Your task to perform on an android device: toggle translation in the chrome app Image 0: 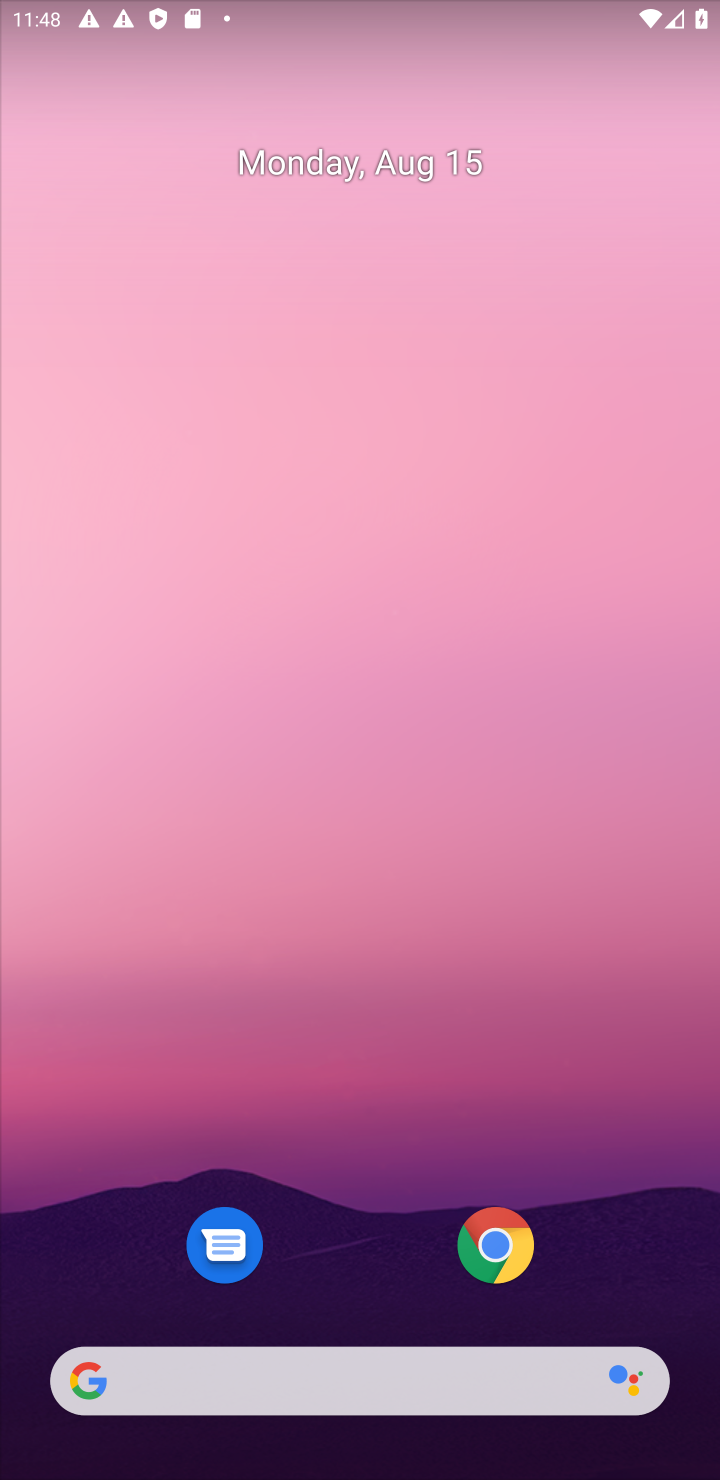
Step 0: drag from (308, 496) to (313, 227)
Your task to perform on an android device: toggle translation in the chrome app Image 1: 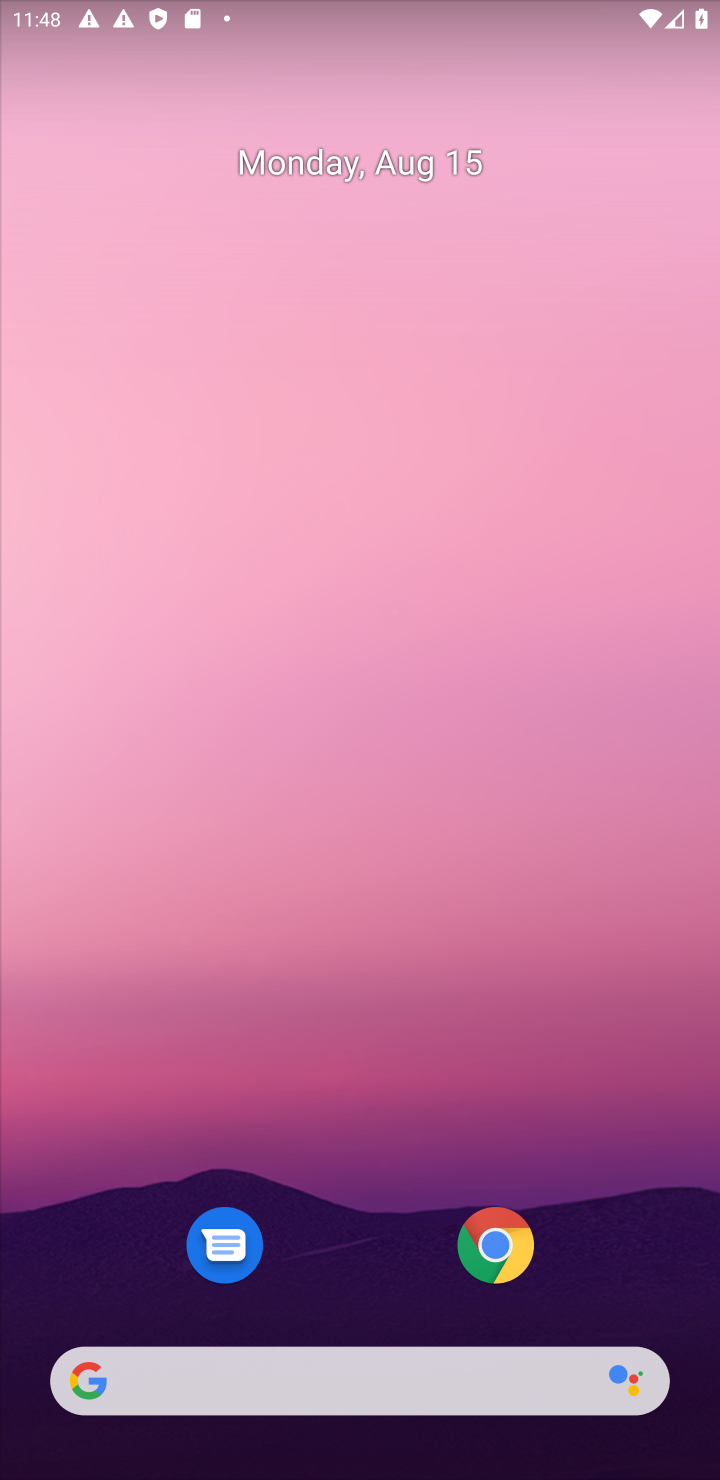
Step 1: drag from (257, 1194) to (334, 125)
Your task to perform on an android device: toggle translation in the chrome app Image 2: 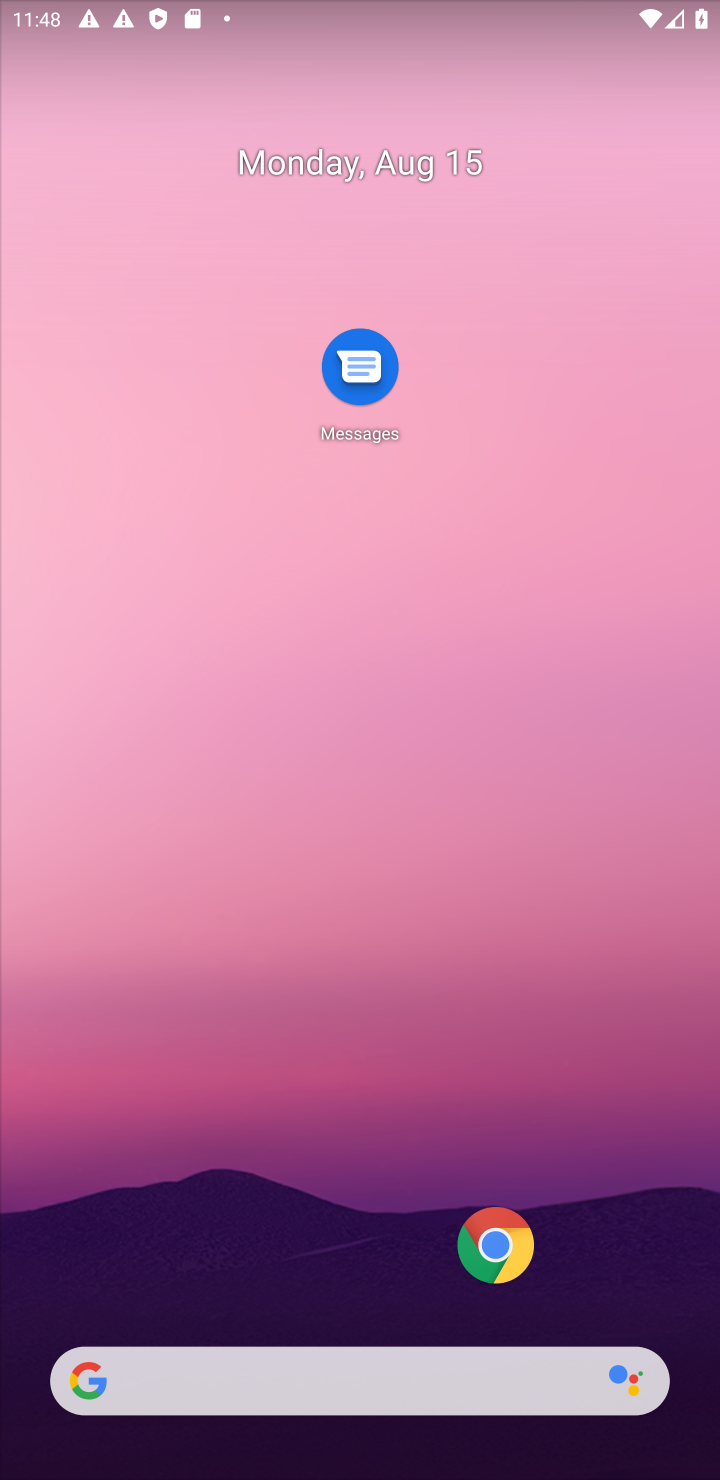
Step 2: drag from (358, 743) to (379, 374)
Your task to perform on an android device: toggle translation in the chrome app Image 3: 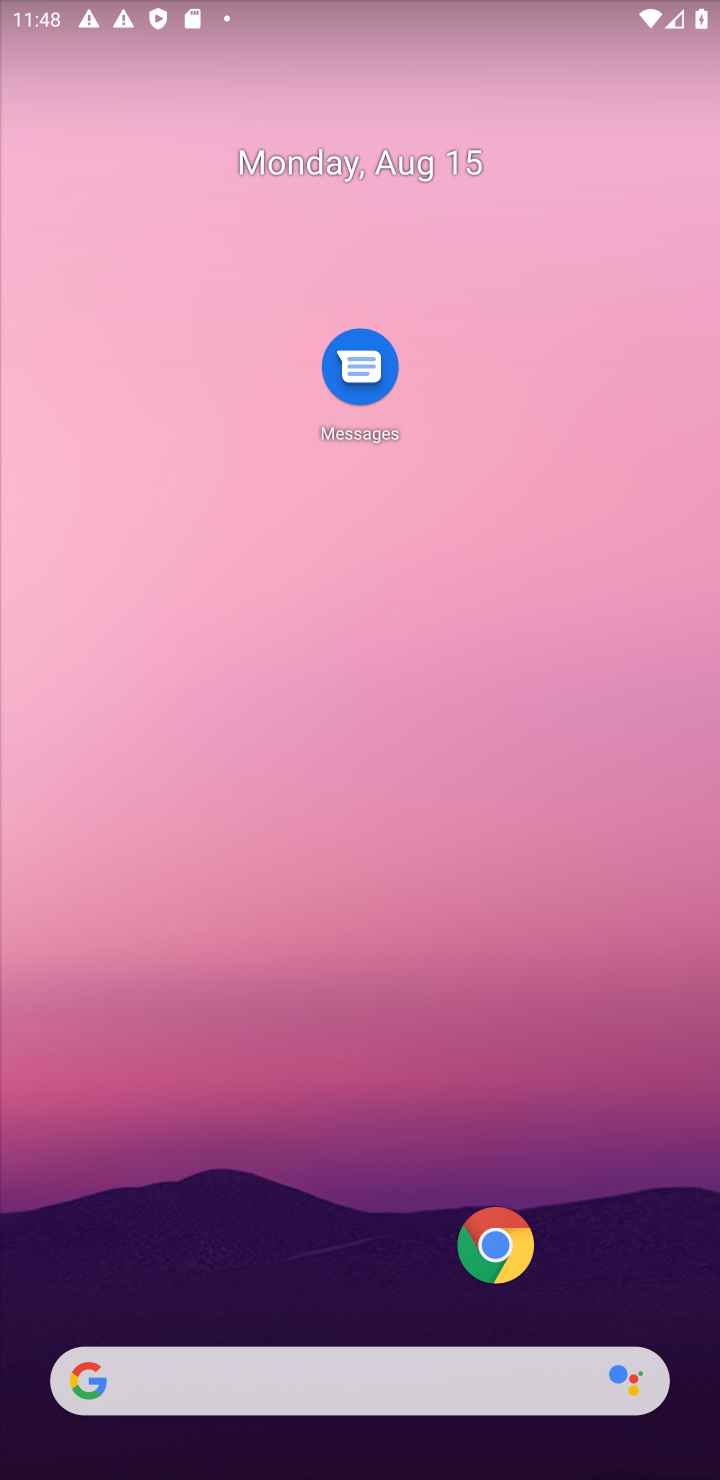
Step 3: drag from (291, 818) to (356, 407)
Your task to perform on an android device: toggle translation in the chrome app Image 4: 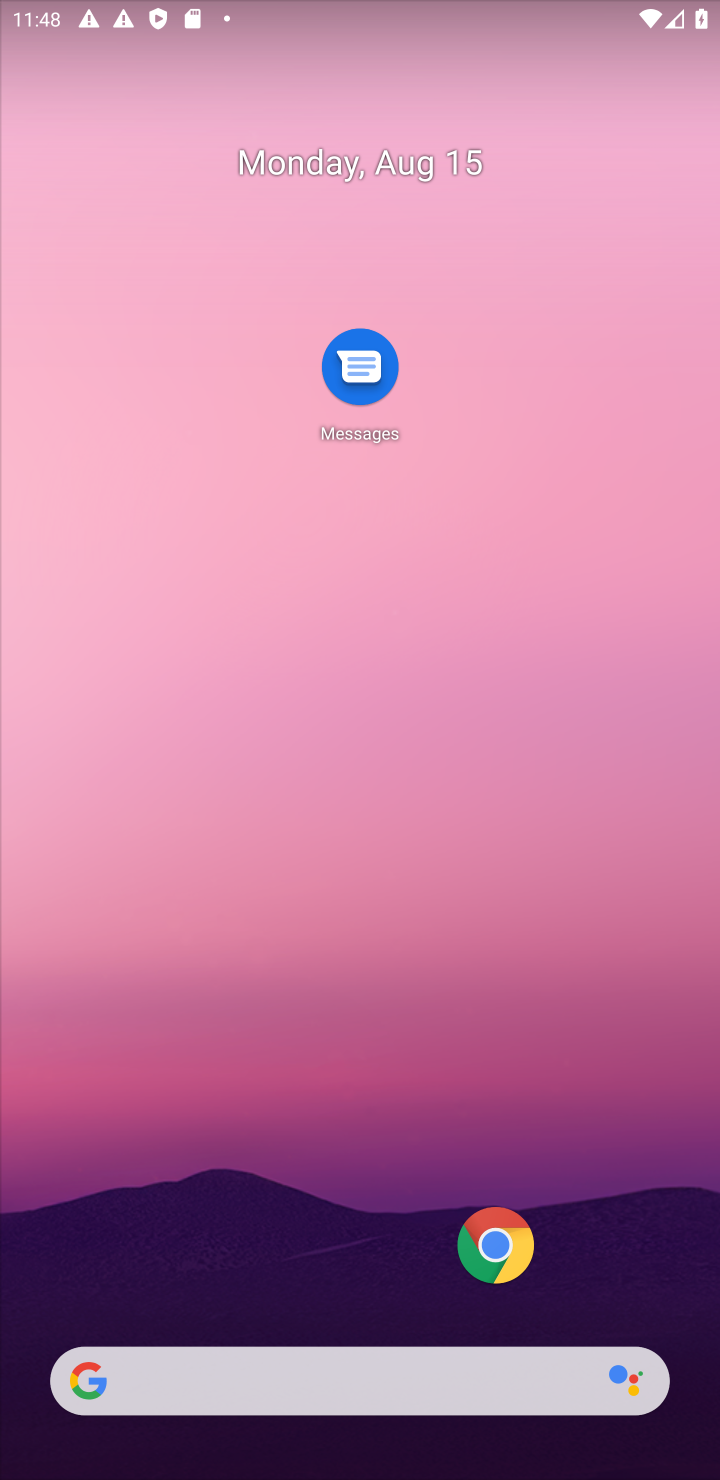
Step 4: drag from (251, 1291) to (297, 176)
Your task to perform on an android device: toggle translation in the chrome app Image 5: 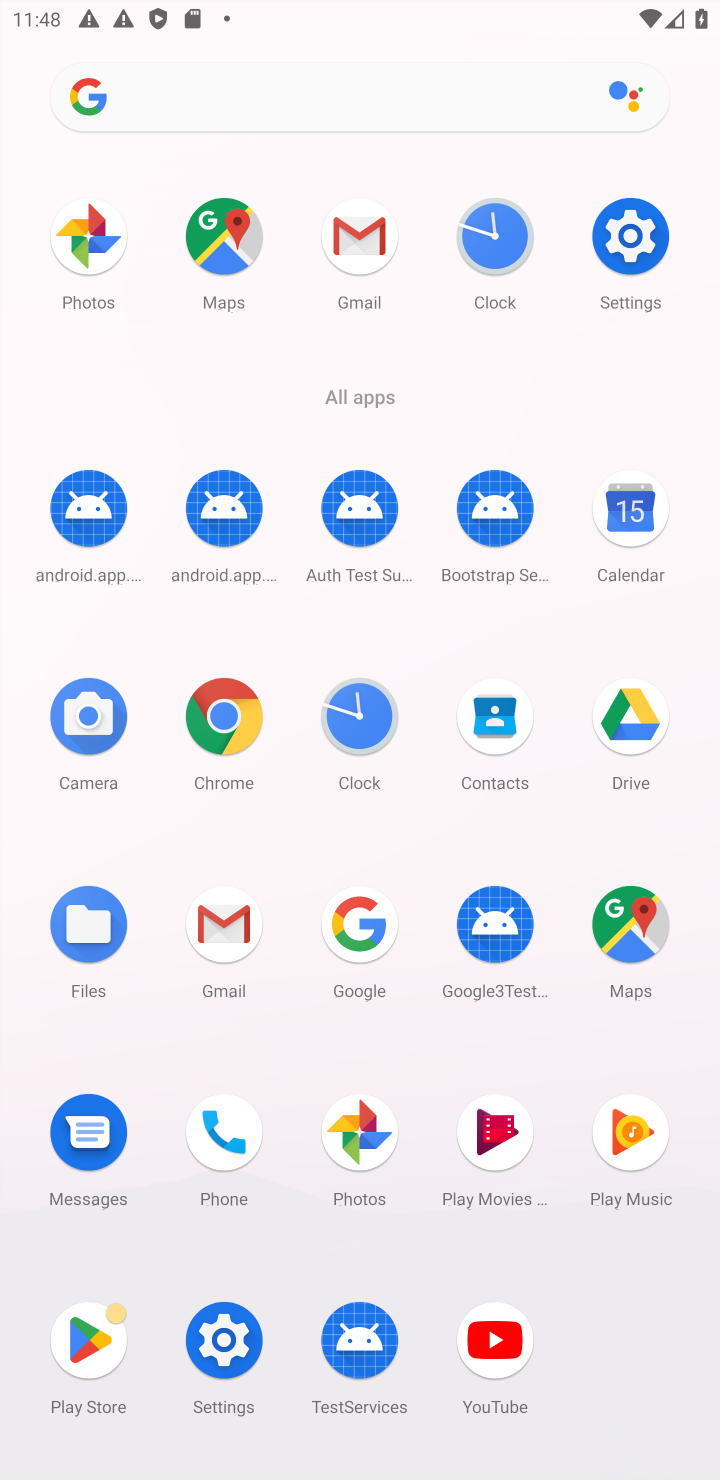
Step 5: click (212, 710)
Your task to perform on an android device: toggle translation in the chrome app Image 6: 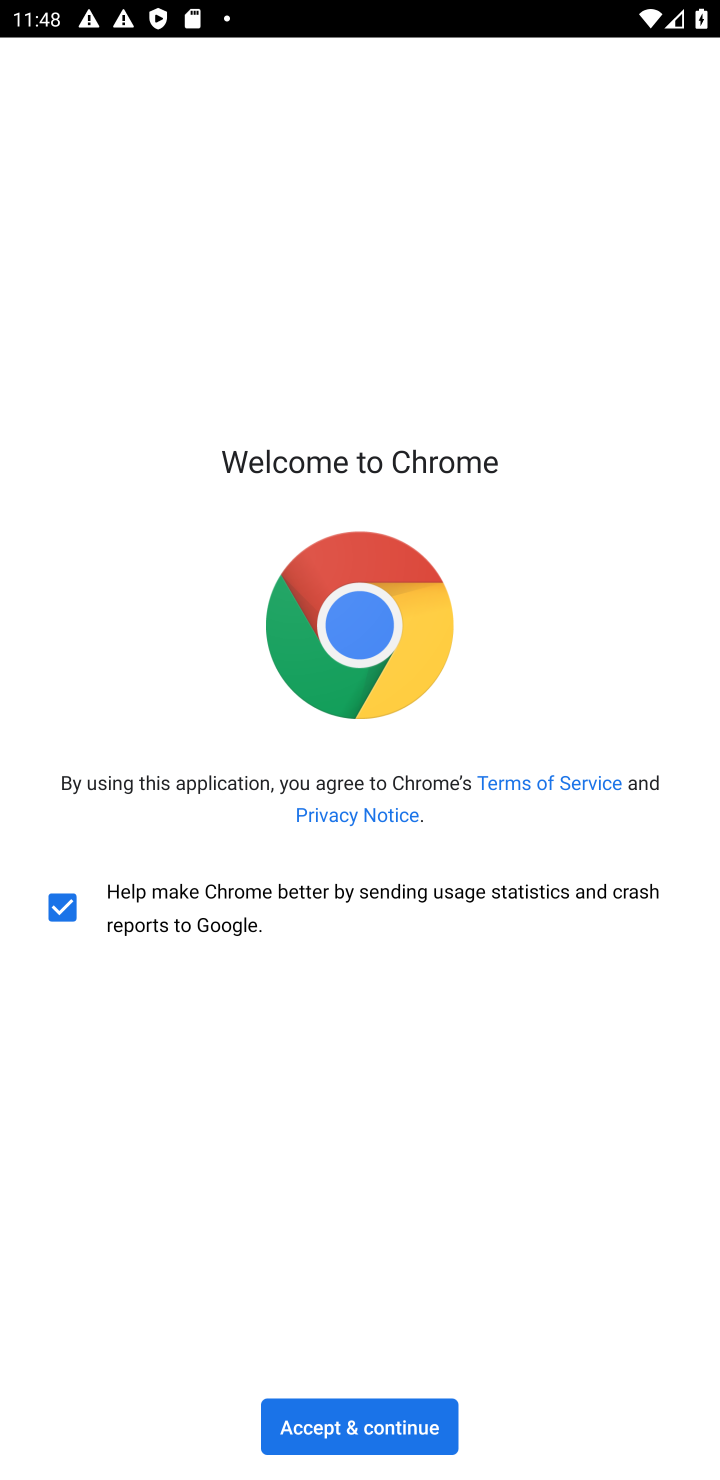
Step 6: click (372, 1410)
Your task to perform on an android device: toggle translation in the chrome app Image 7: 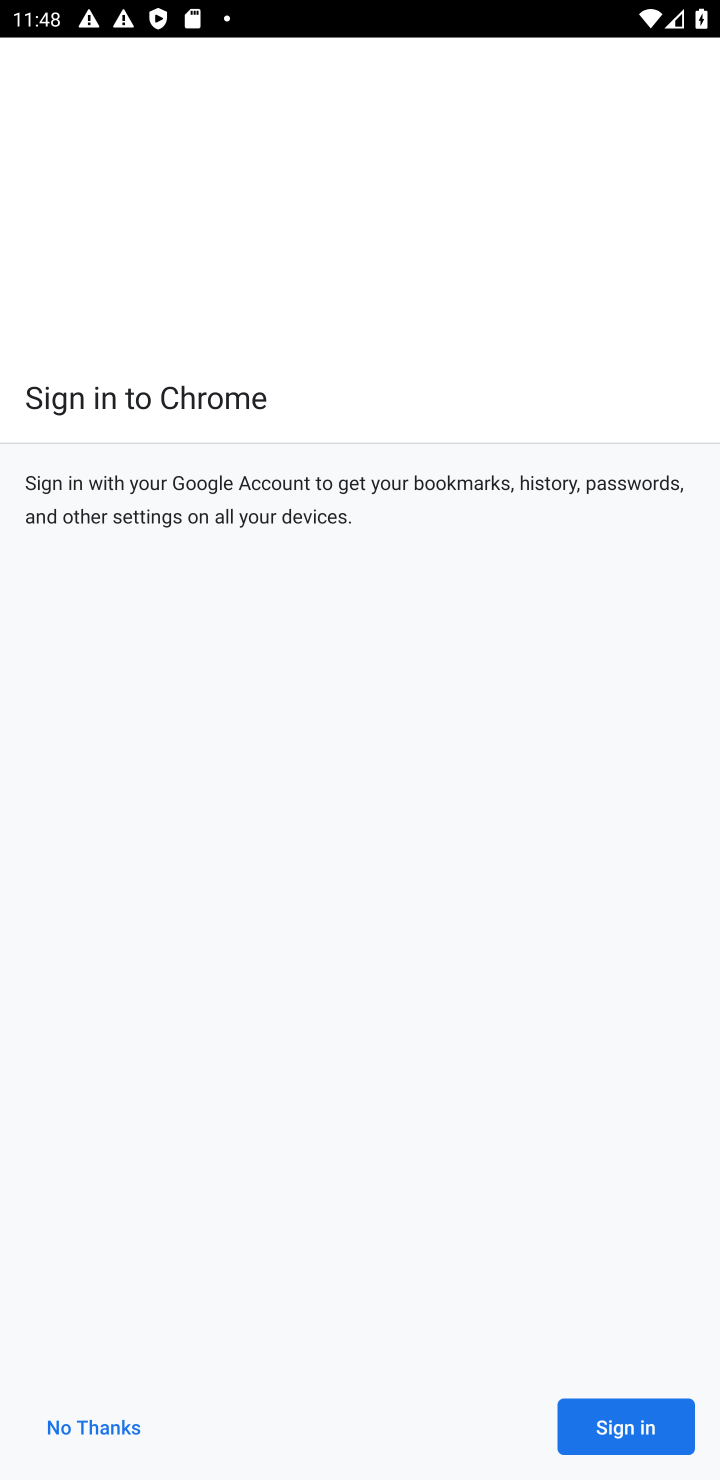
Step 7: click (656, 1424)
Your task to perform on an android device: toggle translation in the chrome app Image 8: 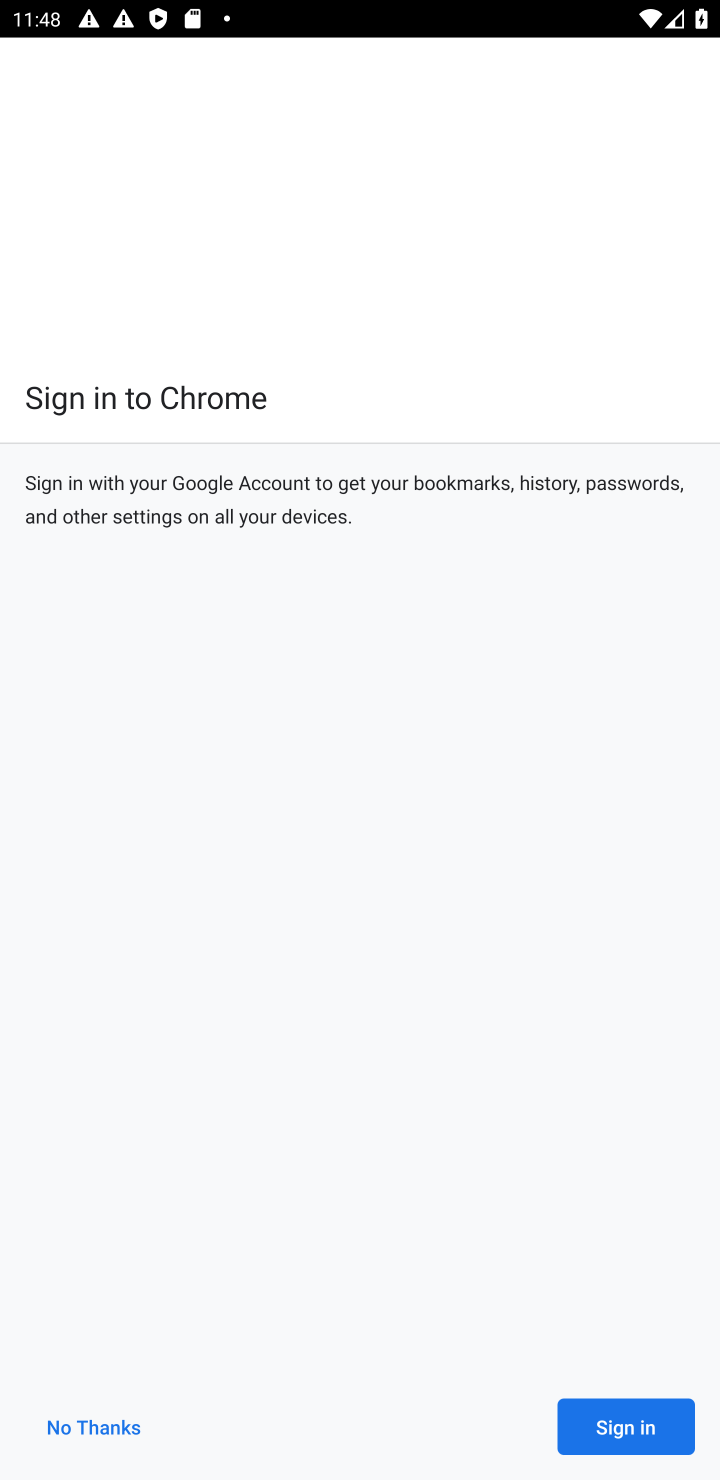
Step 8: click (53, 1424)
Your task to perform on an android device: toggle translation in the chrome app Image 9: 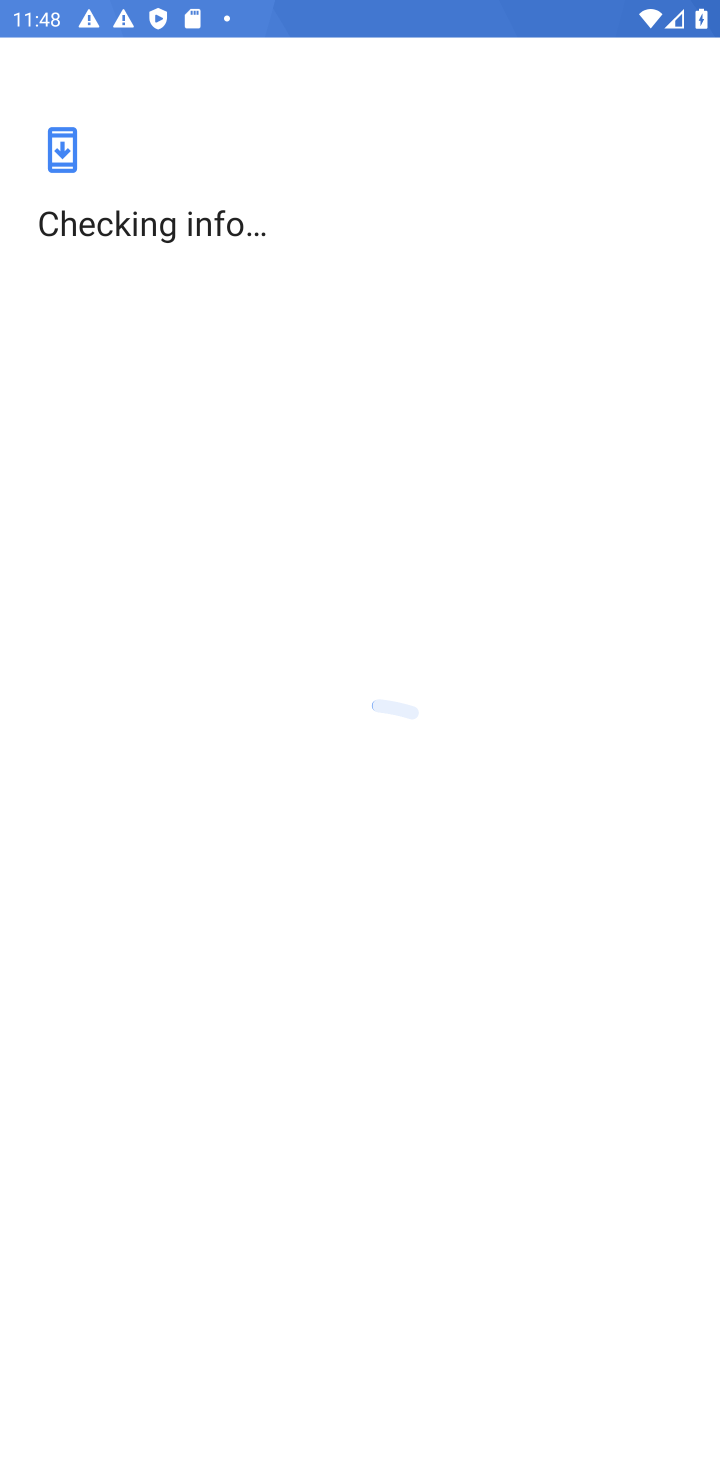
Step 9: task complete